Your task to perform on an android device: set default search engine in the chrome app Image 0: 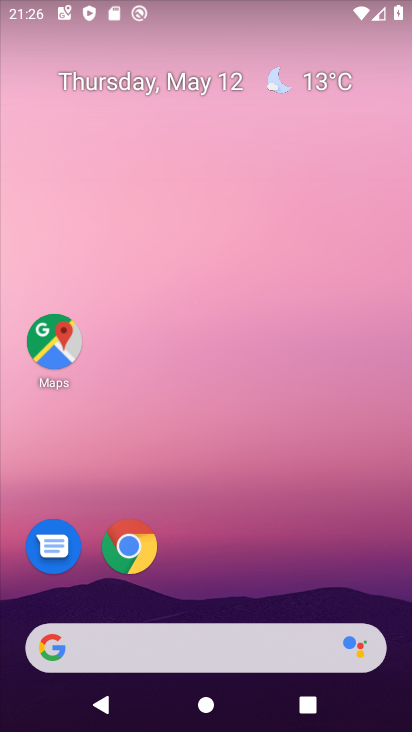
Step 0: drag from (236, 558) to (244, 80)
Your task to perform on an android device: set default search engine in the chrome app Image 1: 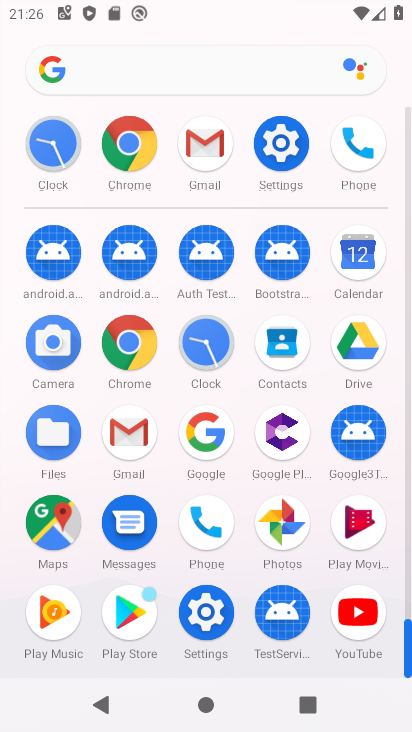
Step 1: click (127, 339)
Your task to perform on an android device: set default search engine in the chrome app Image 2: 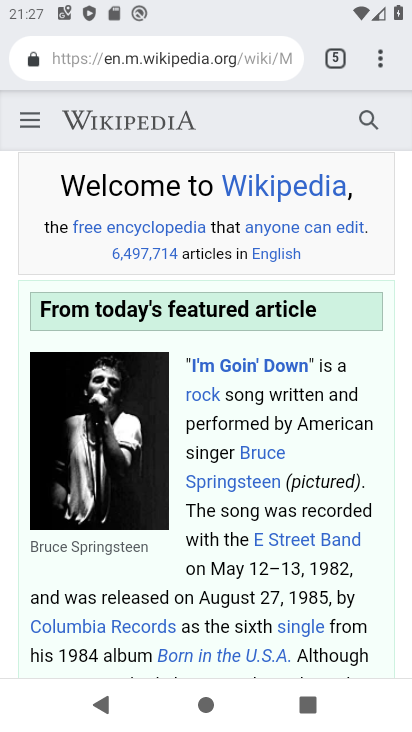
Step 2: drag from (375, 56) to (190, 580)
Your task to perform on an android device: set default search engine in the chrome app Image 3: 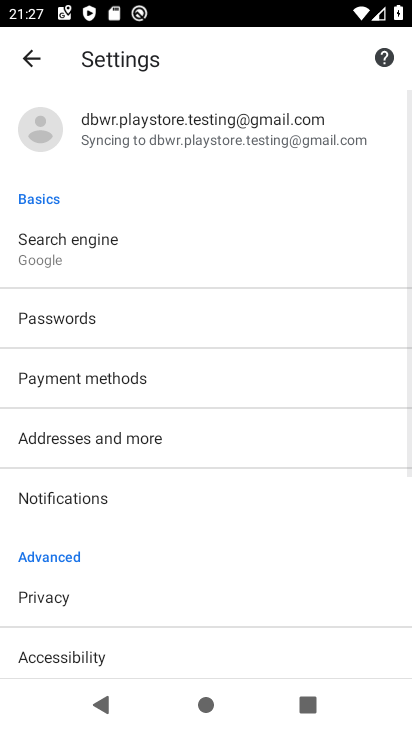
Step 3: click (47, 244)
Your task to perform on an android device: set default search engine in the chrome app Image 4: 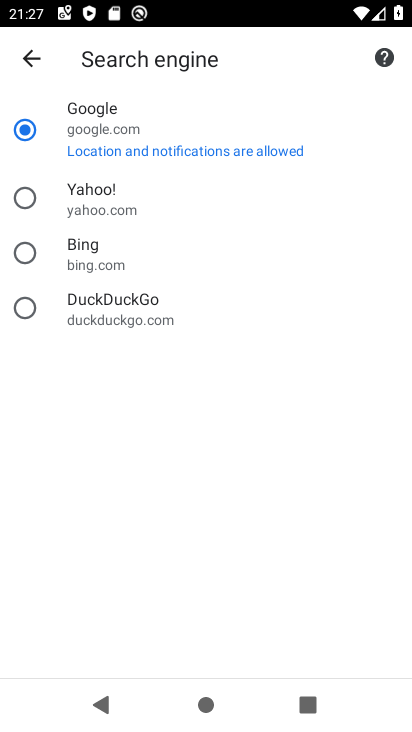
Step 4: task complete